Your task to perform on an android device: open app "DuckDuckGo Privacy Browser" Image 0: 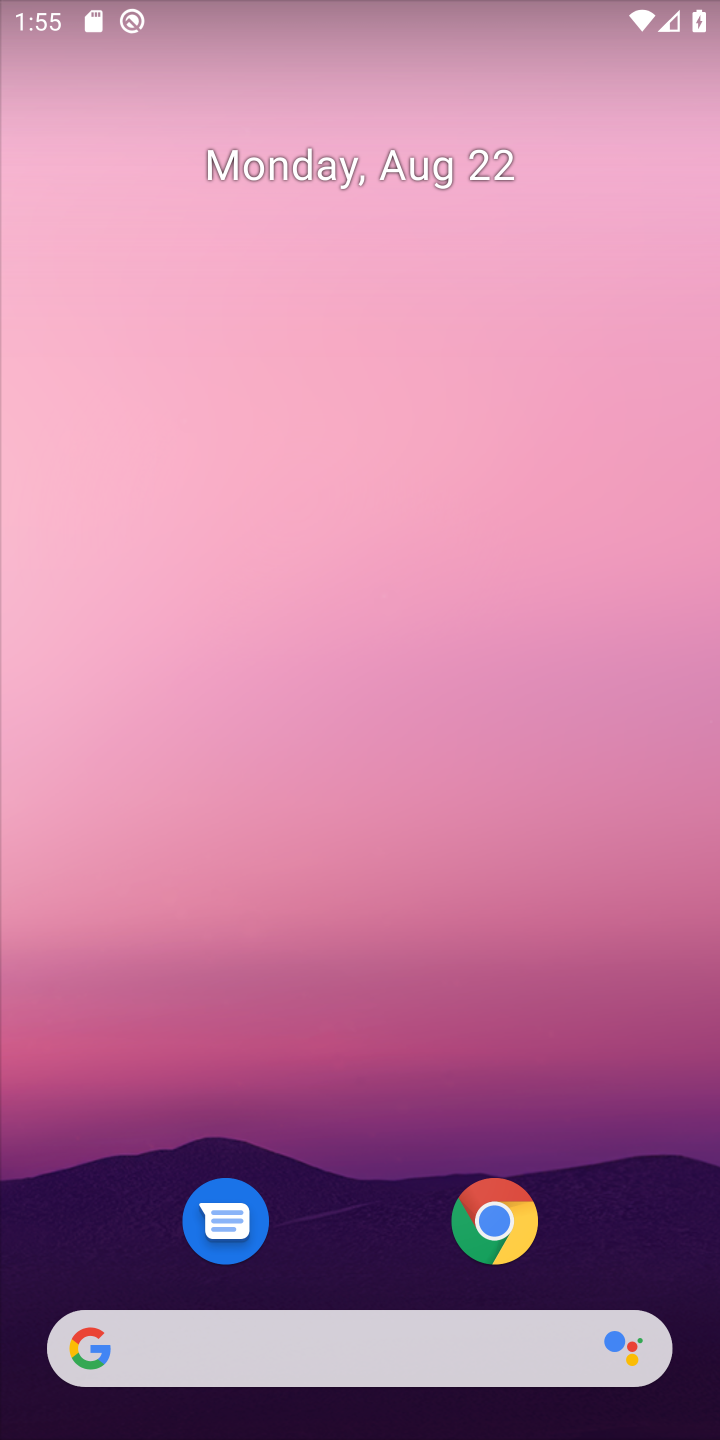
Step 0: drag from (369, 1271) to (336, 194)
Your task to perform on an android device: open app "DuckDuckGo Privacy Browser" Image 1: 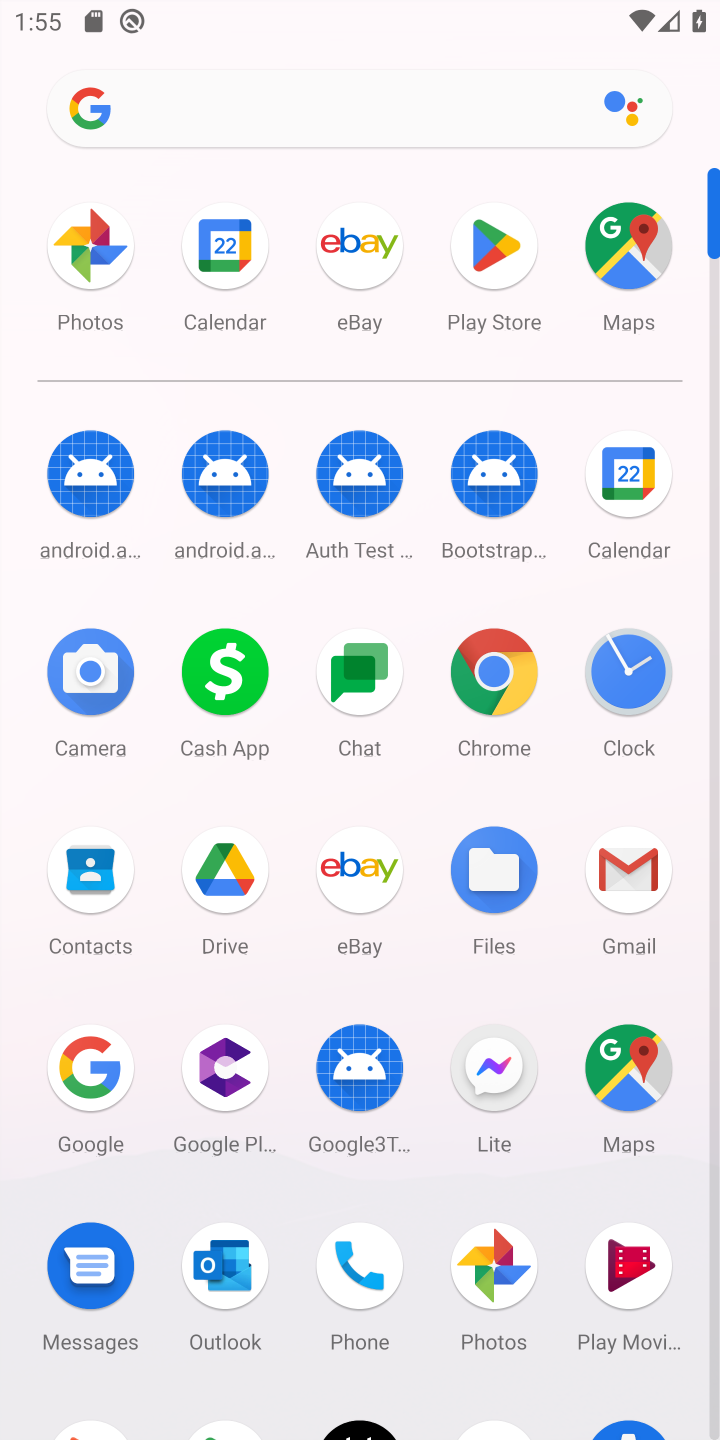
Step 1: click (487, 238)
Your task to perform on an android device: open app "DuckDuckGo Privacy Browser" Image 2: 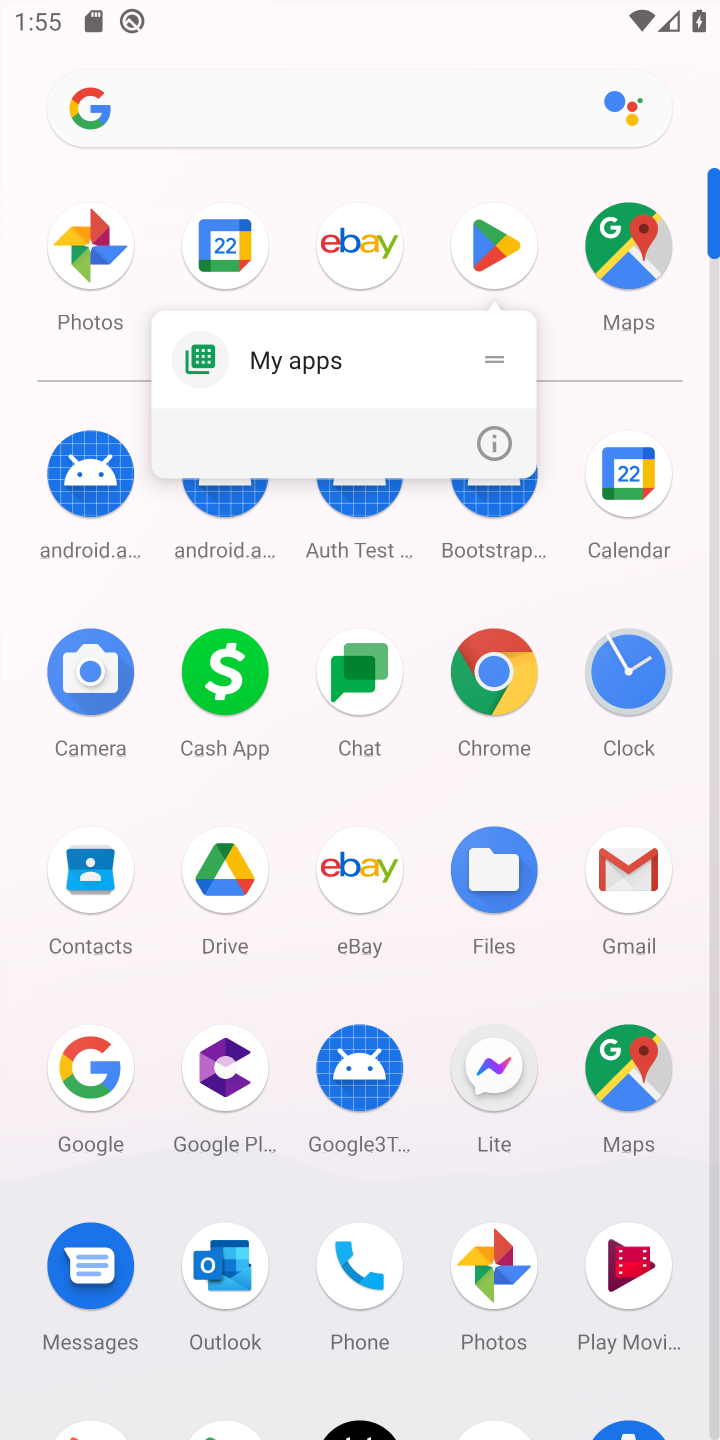
Step 2: click (485, 244)
Your task to perform on an android device: open app "DuckDuckGo Privacy Browser" Image 3: 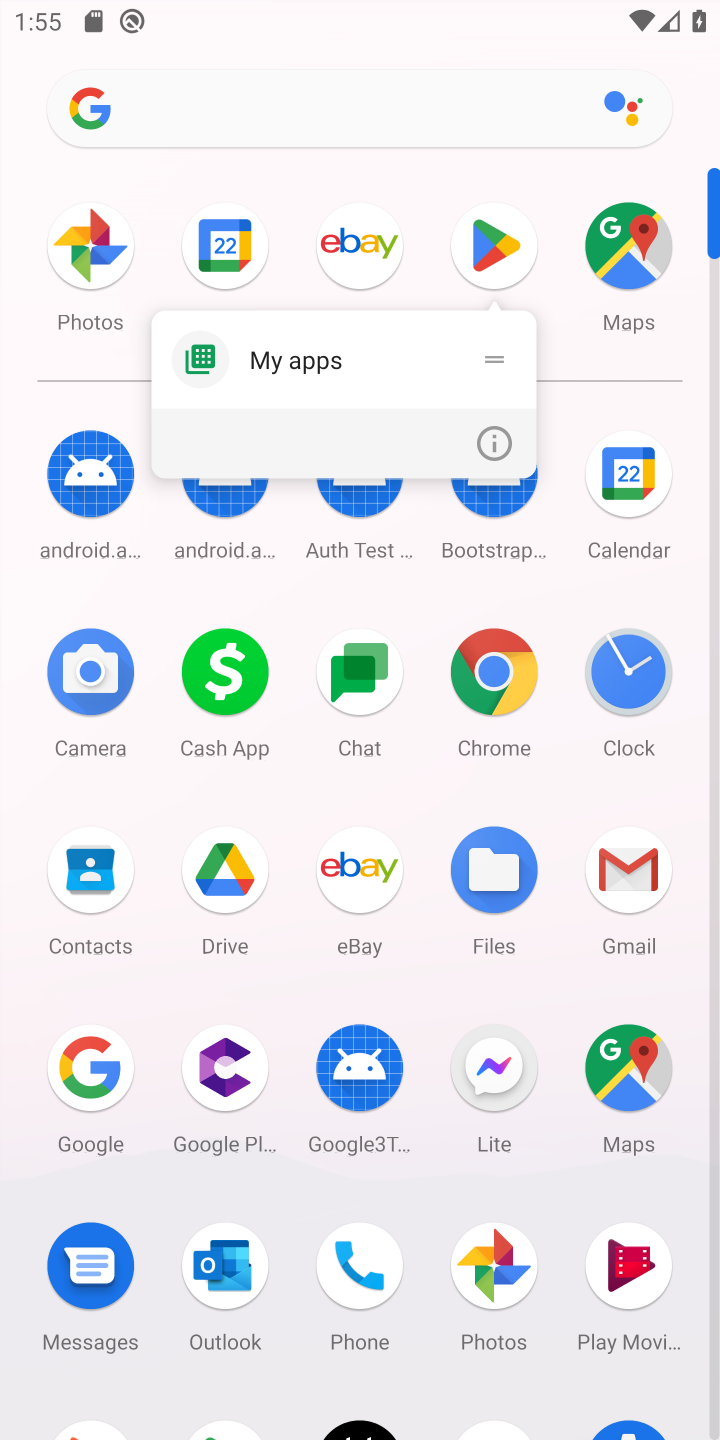
Step 3: click (496, 247)
Your task to perform on an android device: open app "DuckDuckGo Privacy Browser" Image 4: 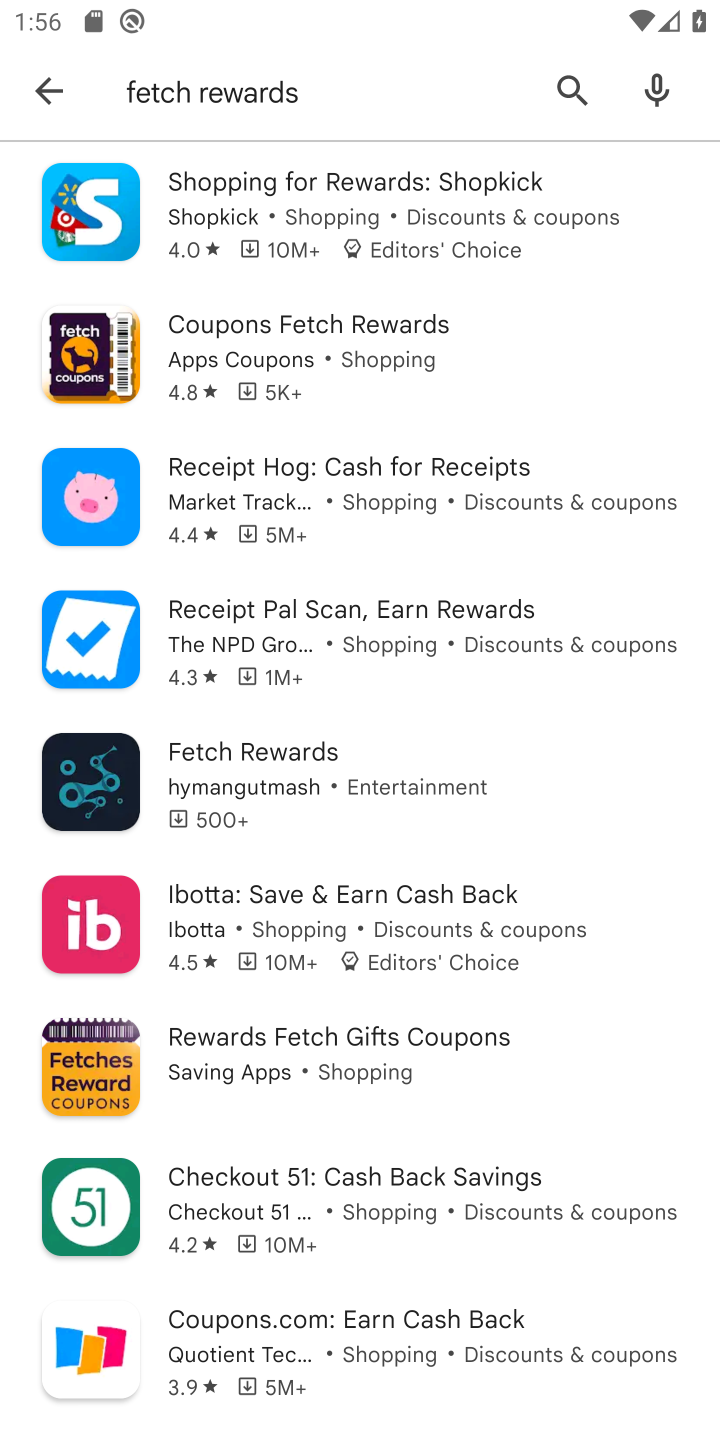
Step 4: click (557, 94)
Your task to perform on an android device: open app "DuckDuckGo Privacy Browser" Image 5: 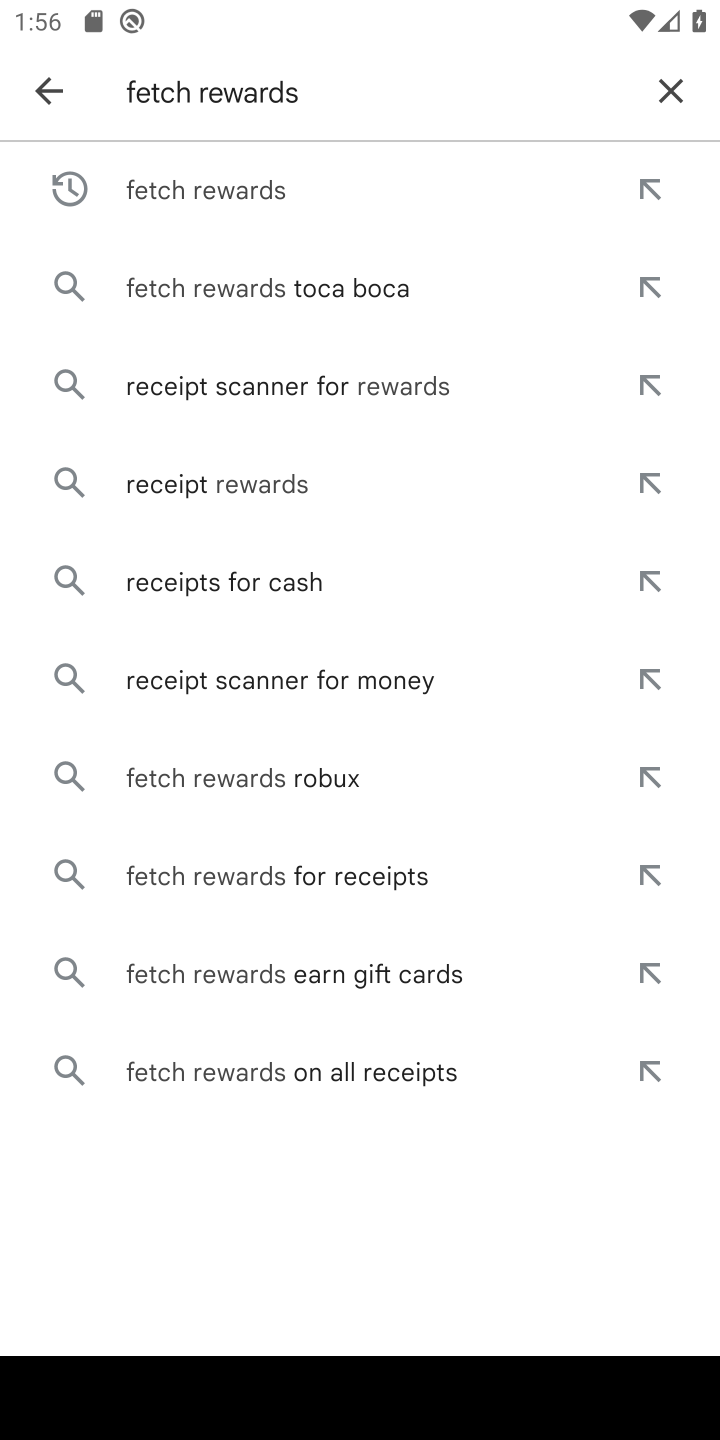
Step 5: click (664, 85)
Your task to perform on an android device: open app "DuckDuckGo Privacy Browser" Image 6: 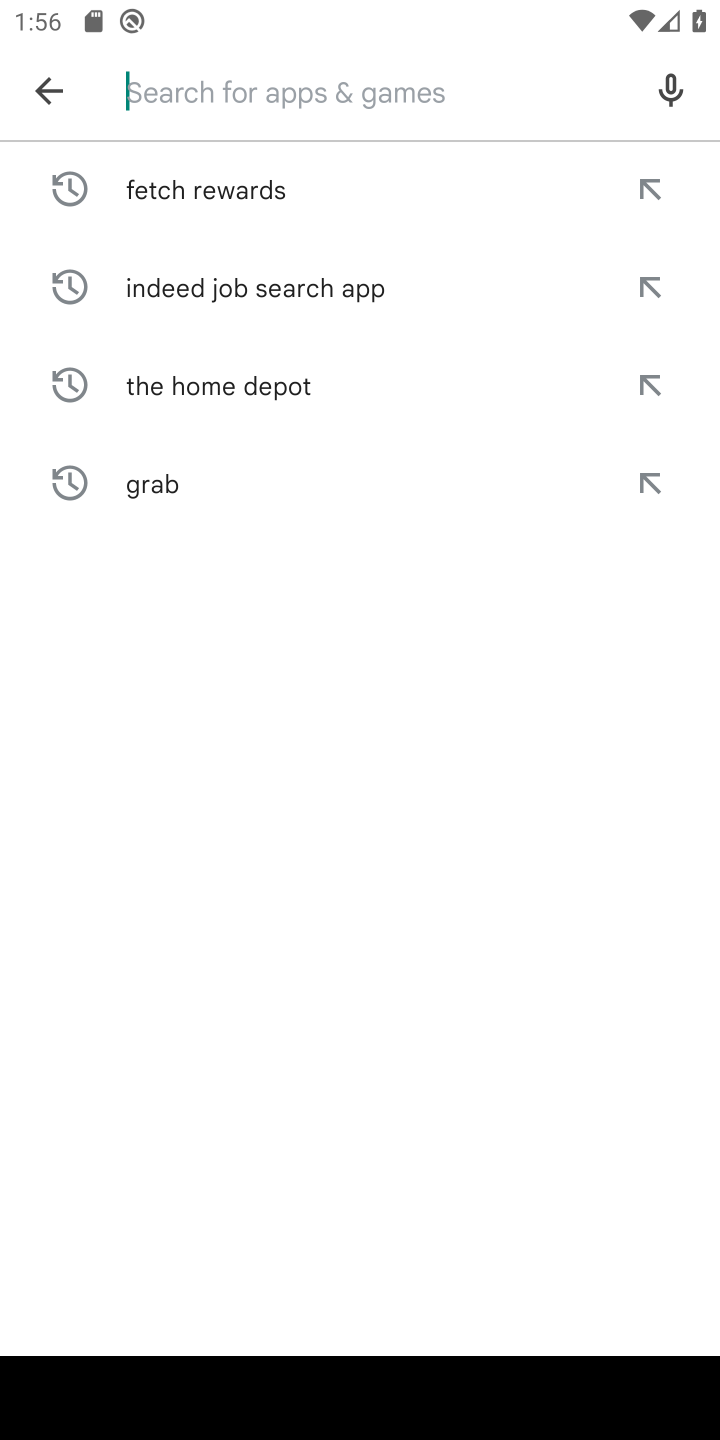
Step 6: type "DuckDuckGo Privacy Browser"
Your task to perform on an android device: open app "DuckDuckGo Privacy Browser" Image 7: 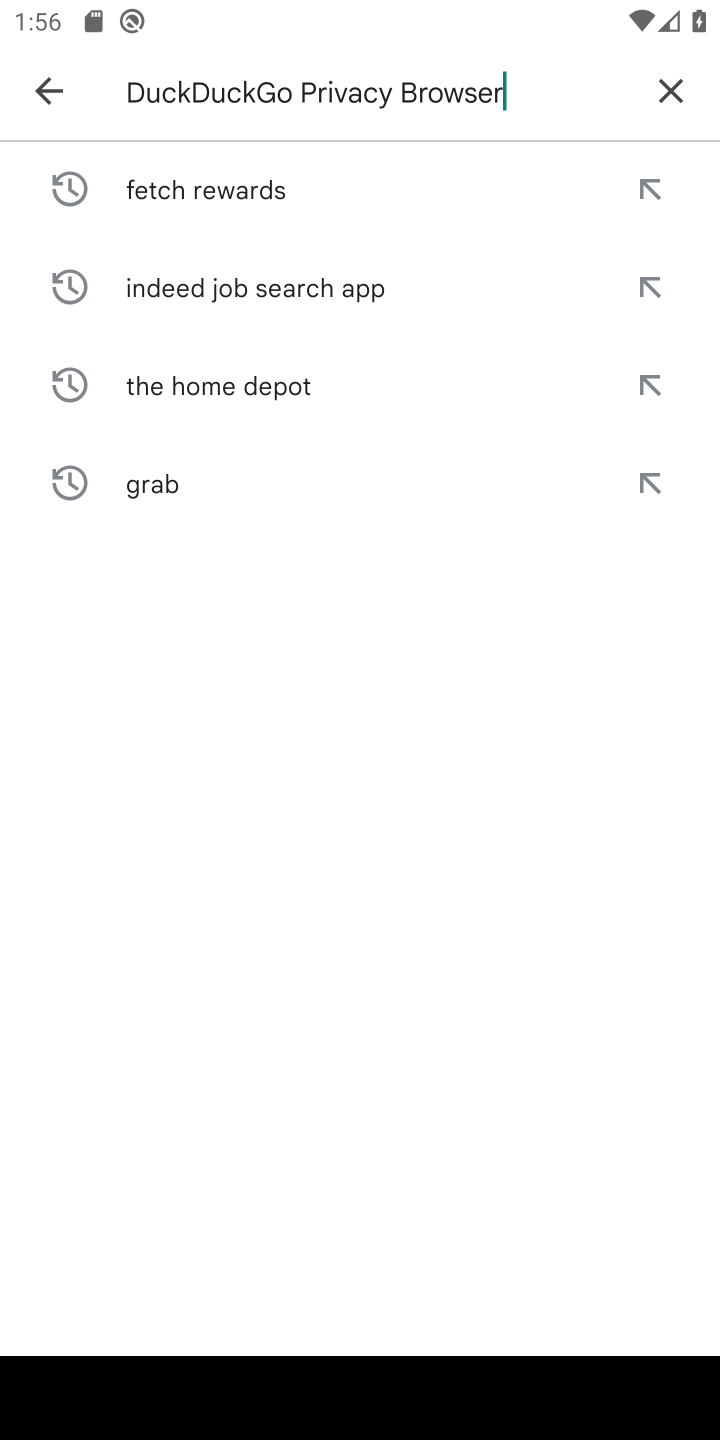
Step 7: type ""
Your task to perform on an android device: open app "DuckDuckGo Privacy Browser" Image 8: 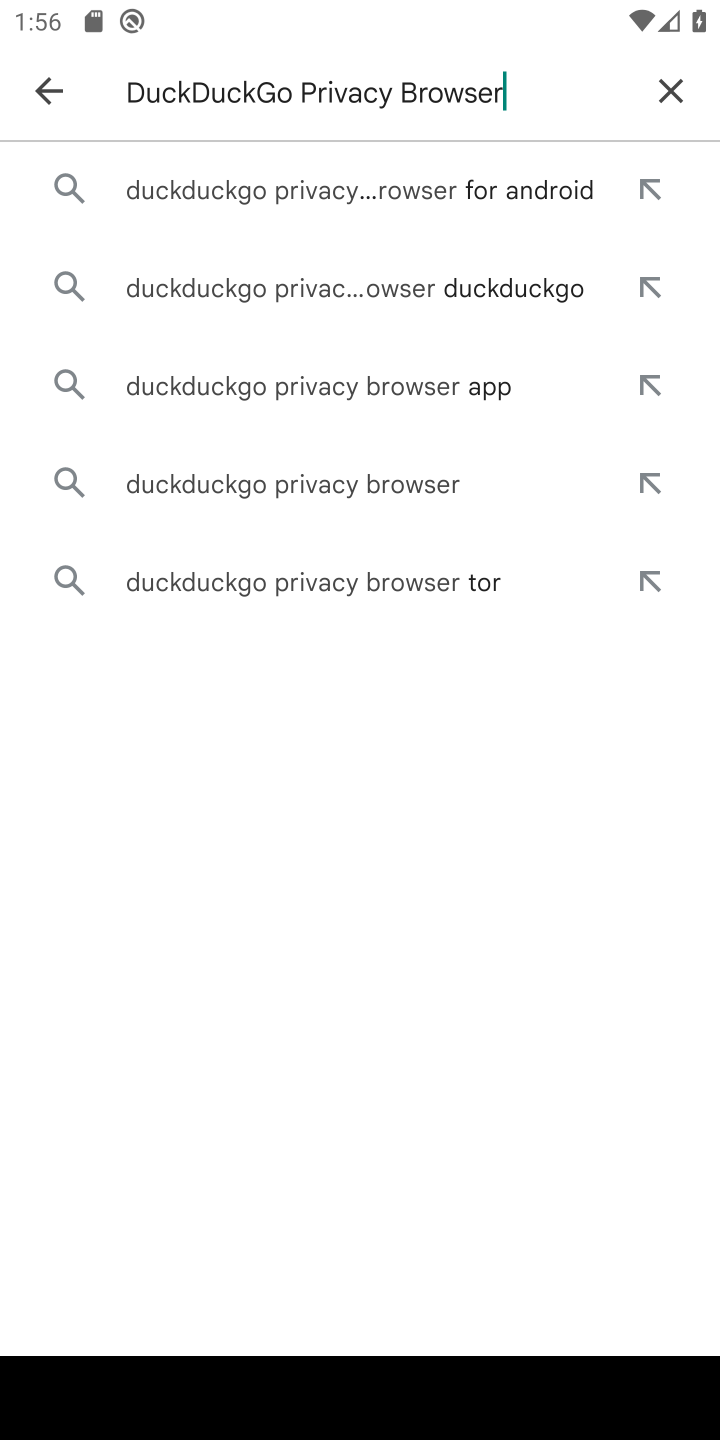
Step 8: click (352, 194)
Your task to perform on an android device: open app "DuckDuckGo Privacy Browser" Image 9: 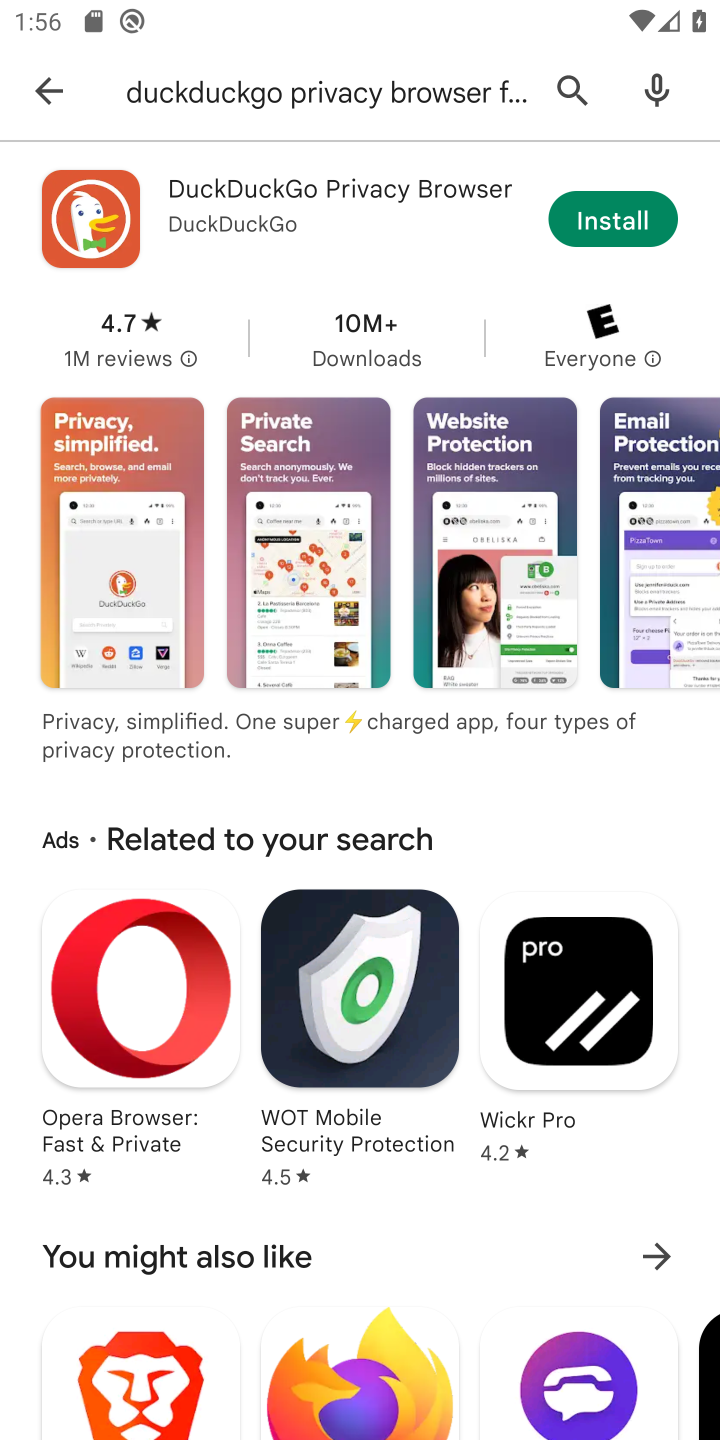
Step 9: task complete